Your task to perform on an android device: uninstall "Adobe Acrobat Reader" Image 0: 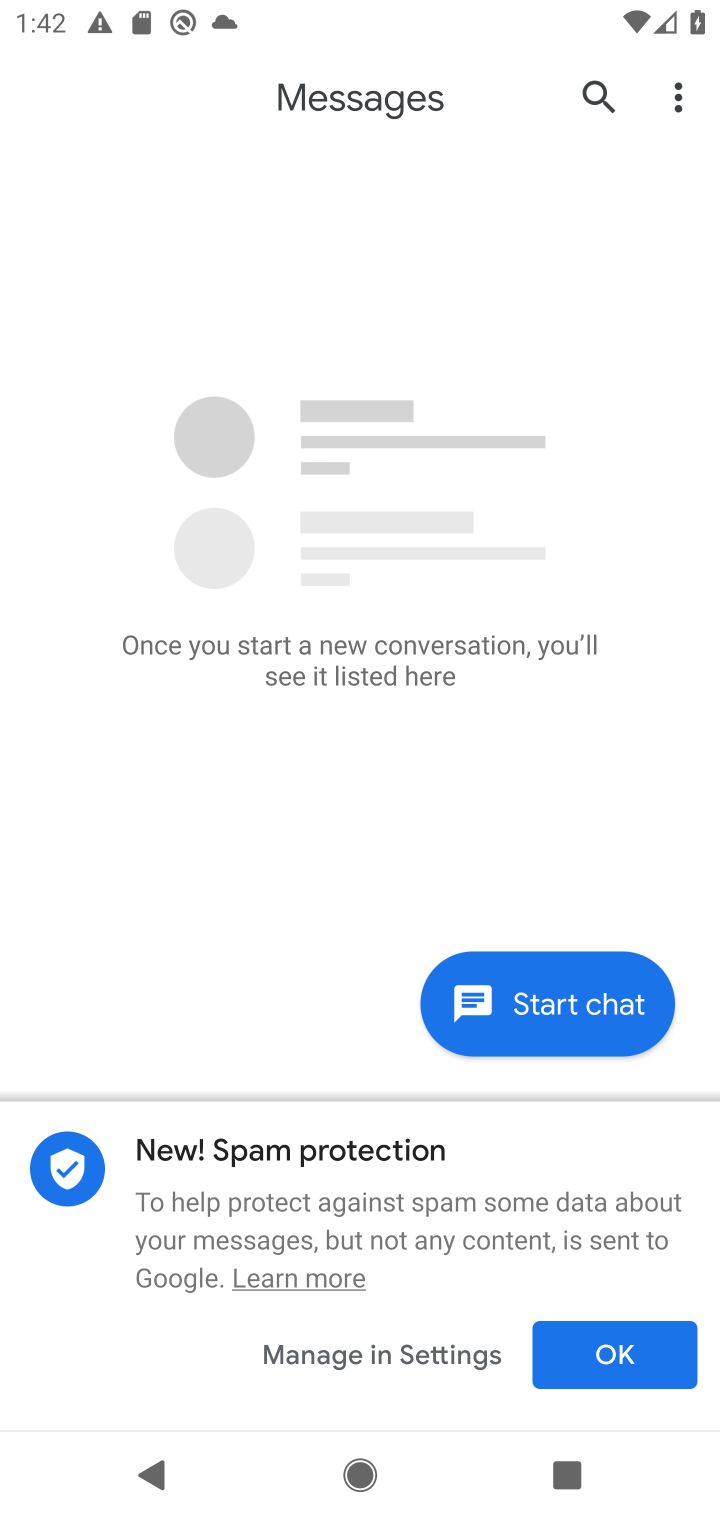
Step 0: press home button
Your task to perform on an android device: uninstall "Adobe Acrobat Reader" Image 1: 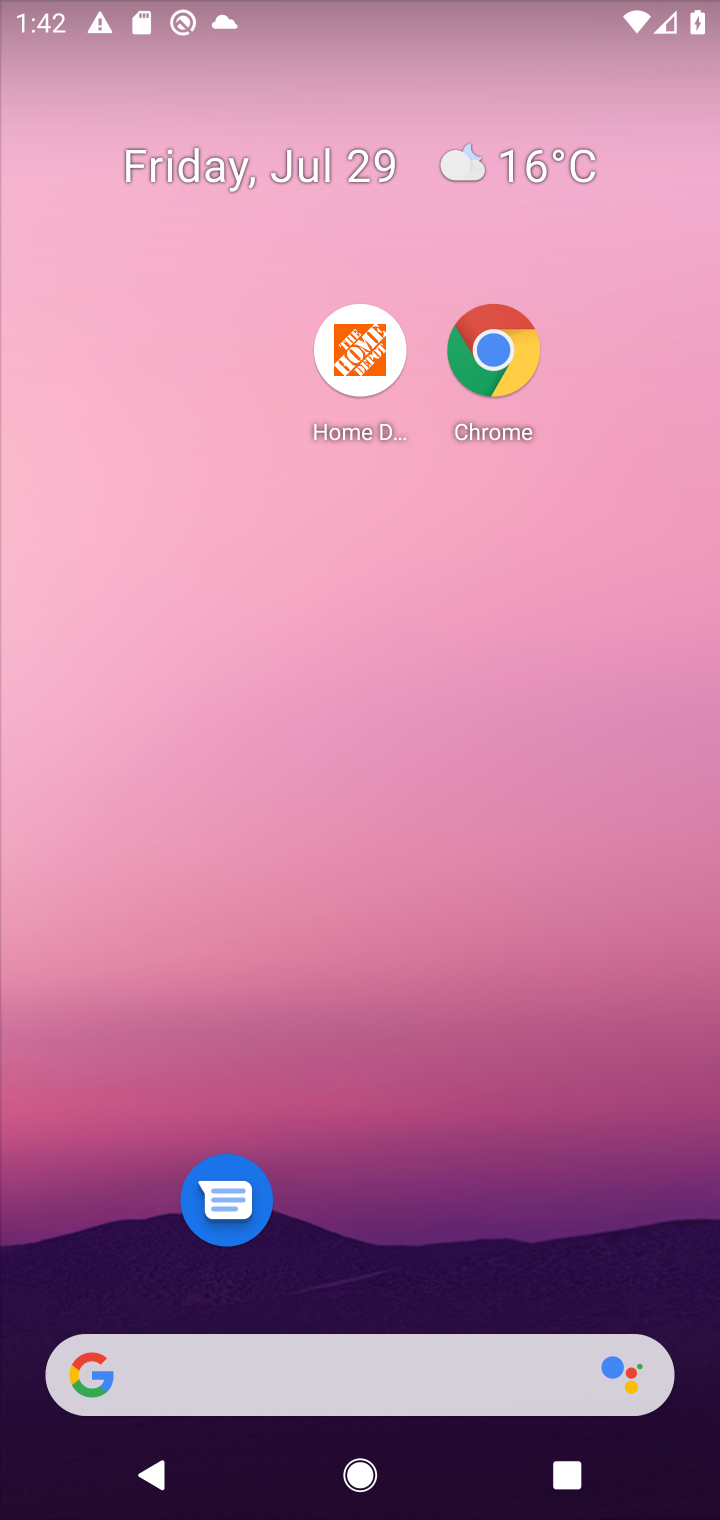
Step 1: drag from (445, 186) to (445, 45)
Your task to perform on an android device: uninstall "Adobe Acrobat Reader" Image 2: 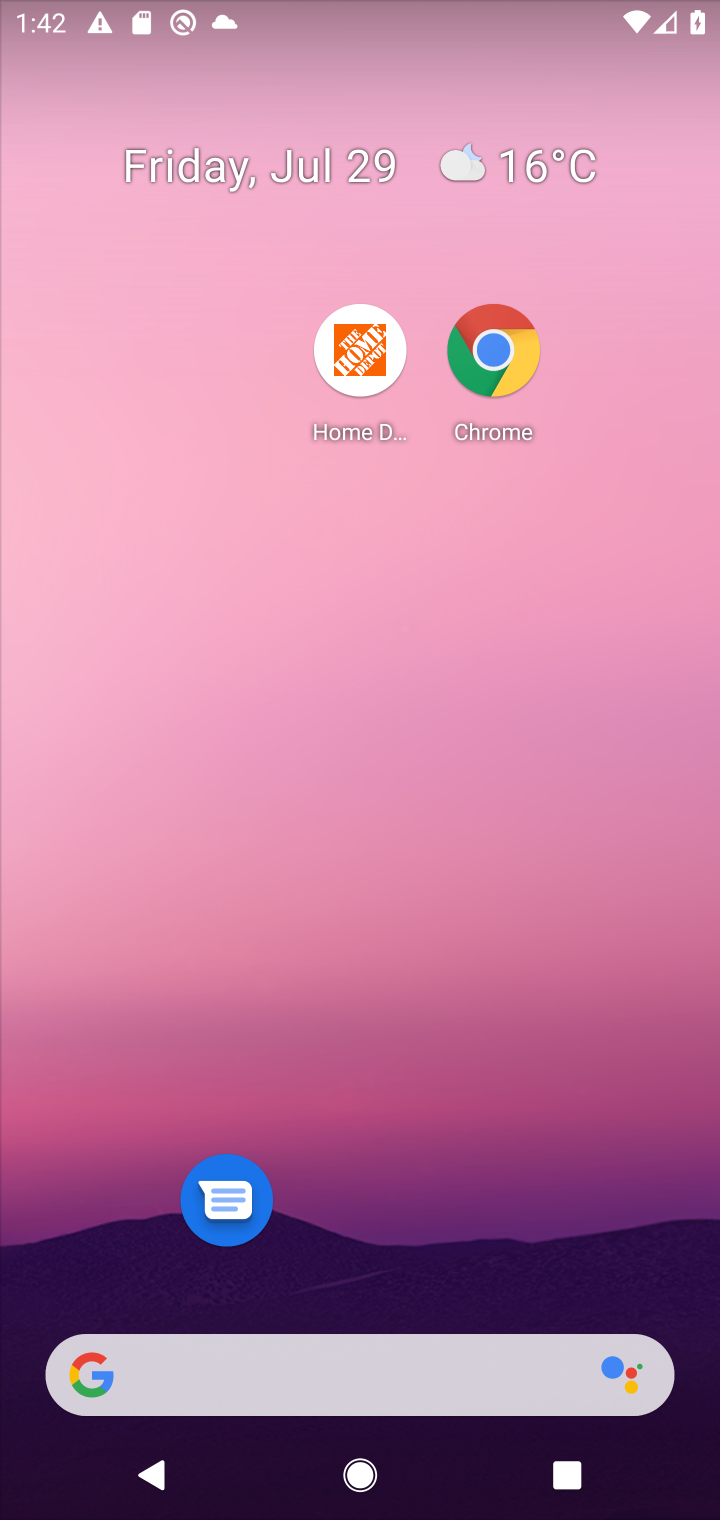
Step 2: drag from (505, 1288) to (461, 266)
Your task to perform on an android device: uninstall "Adobe Acrobat Reader" Image 3: 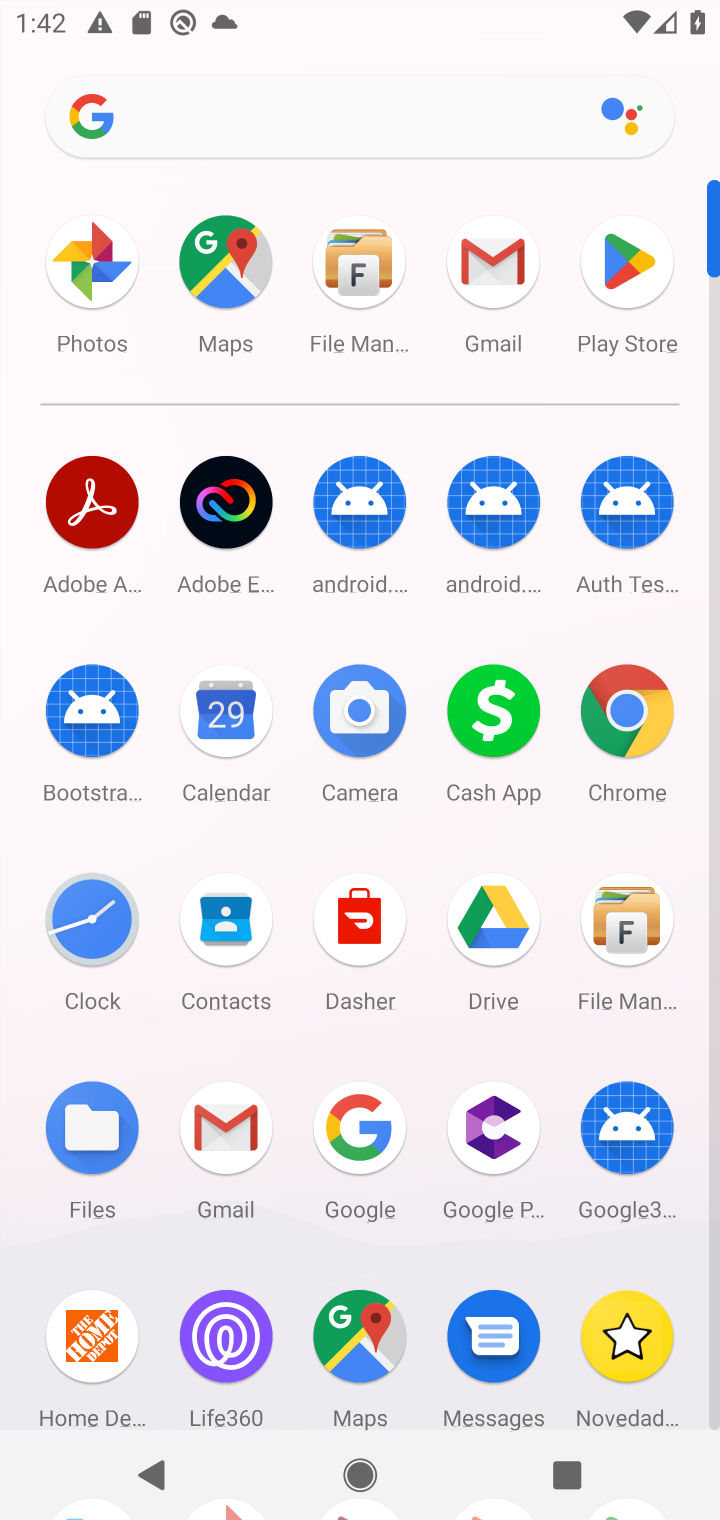
Step 3: click (623, 279)
Your task to perform on an android device: uninstall "Adobe Acrobat Reader" Image 4: 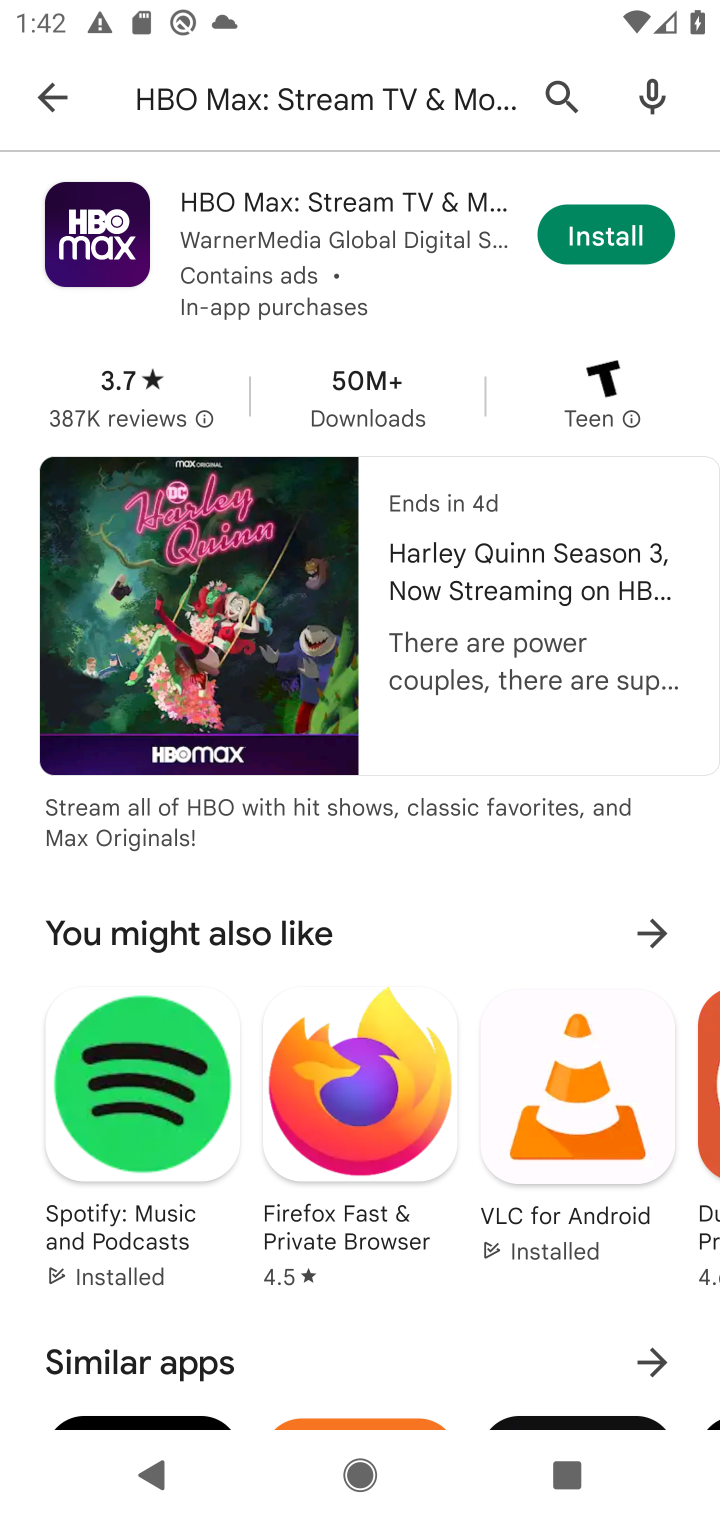
Step 4: click (426, 106)
Your task to perform on an android device: uninstall "Adobe Acrobat Reader" Image 5: 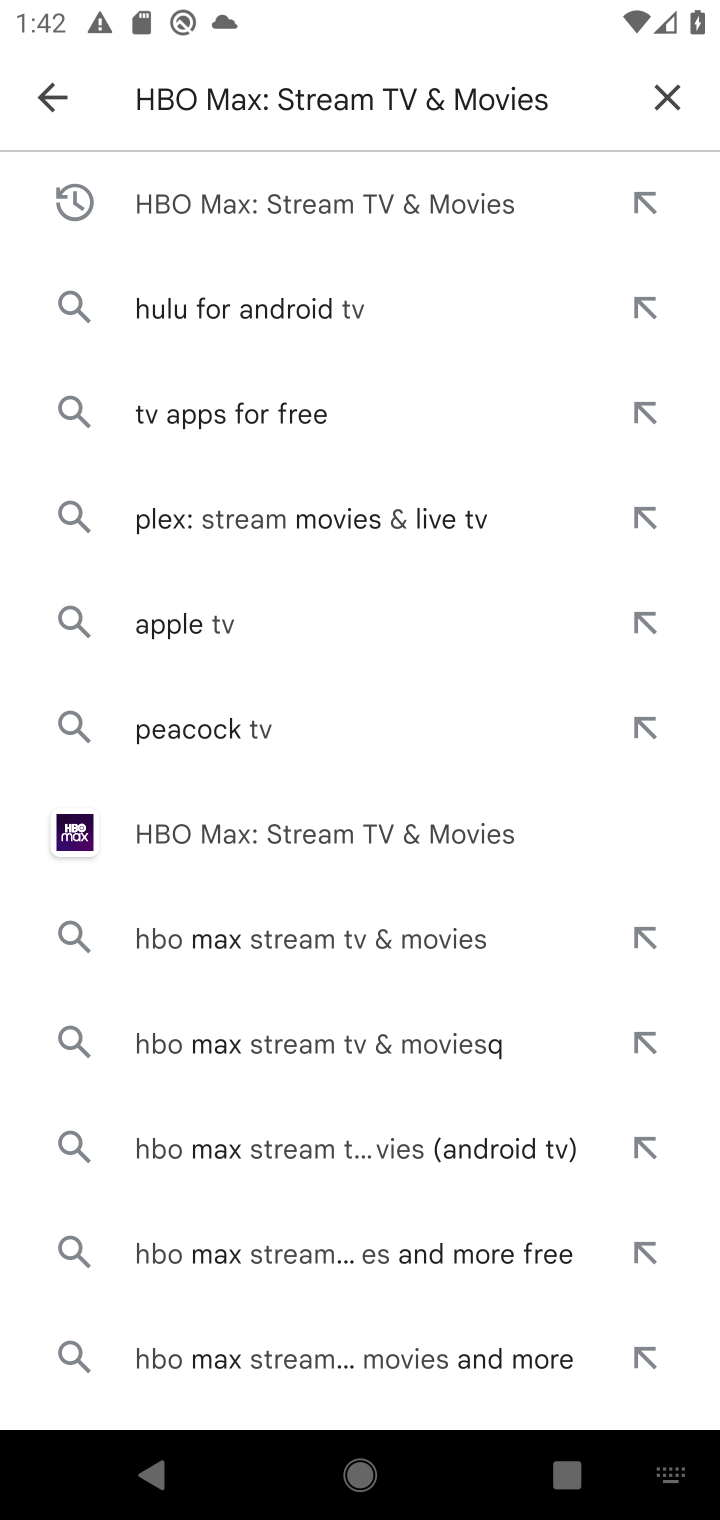
Step 5: click (674, 107)
Your task to perform on an android device: uninstall "Adobe Acrobat Reader" Image 6: 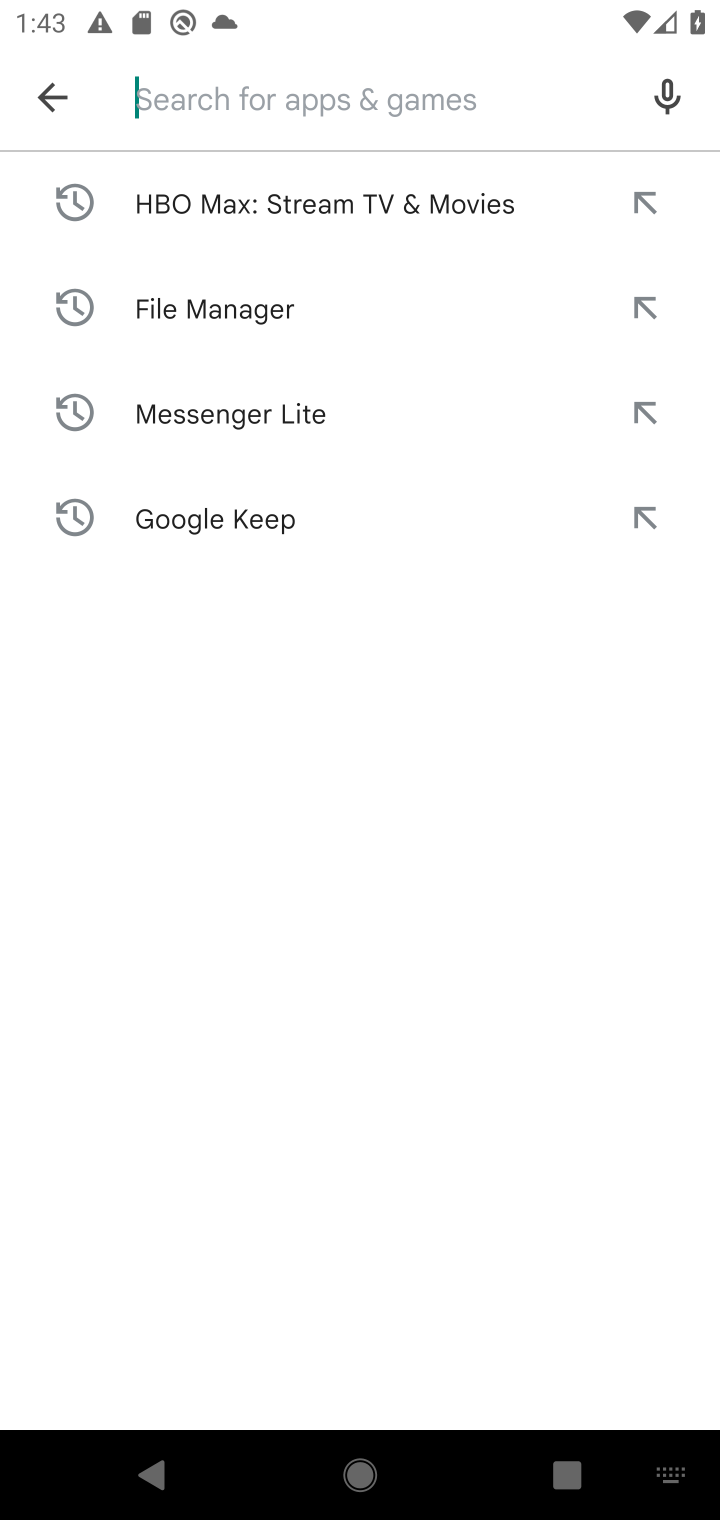
Step 6: type "Adobe Acrobat Reader"
Your task to perform on an android device: uninstall "Adobe Acrobat Reader" Image 7: 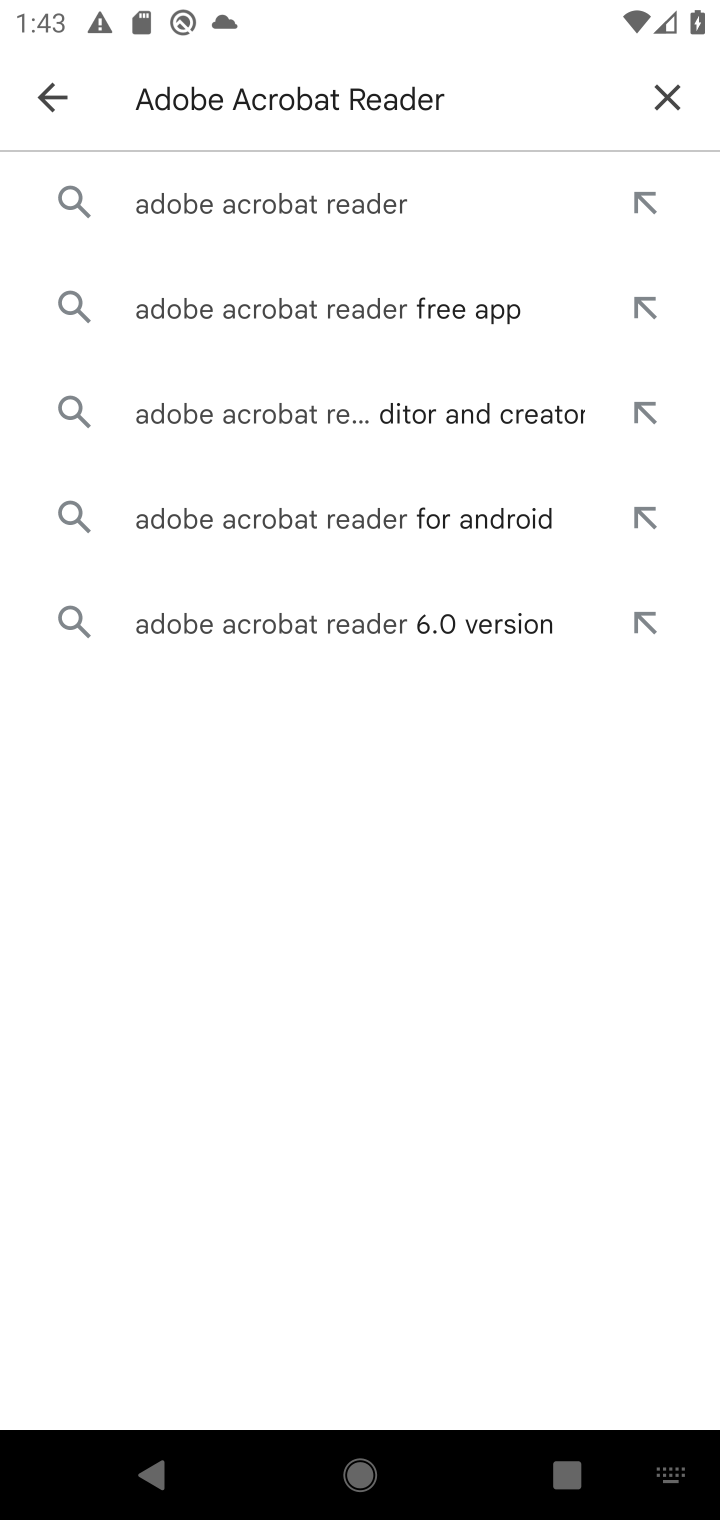
Step 7: press enter
Your task to perform on an android device: uninstall "Adobe Acrobat Reader" Image 8: 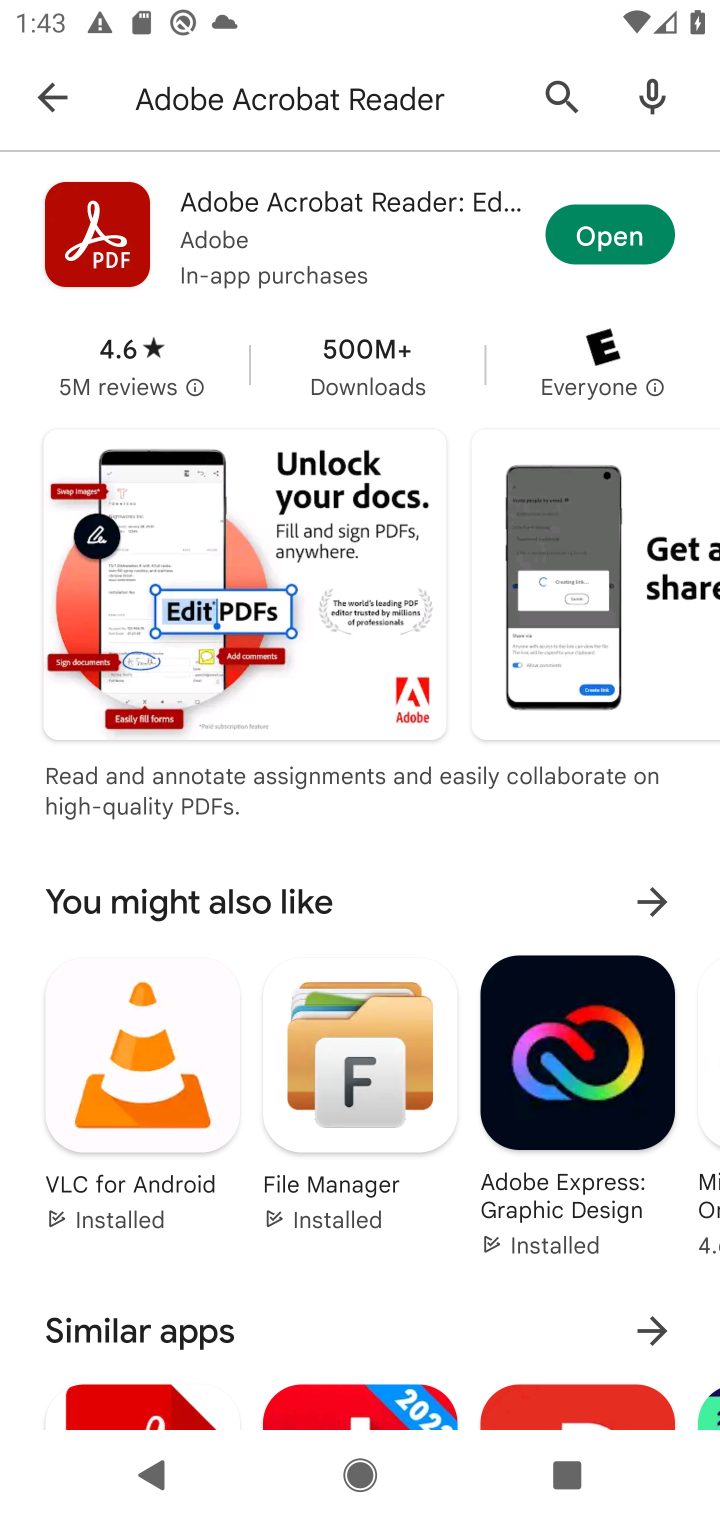
Step 8: click (226, 219)
Your task to perform on an android device: uninstall "Adobe Acrobat Reader" Image 9: 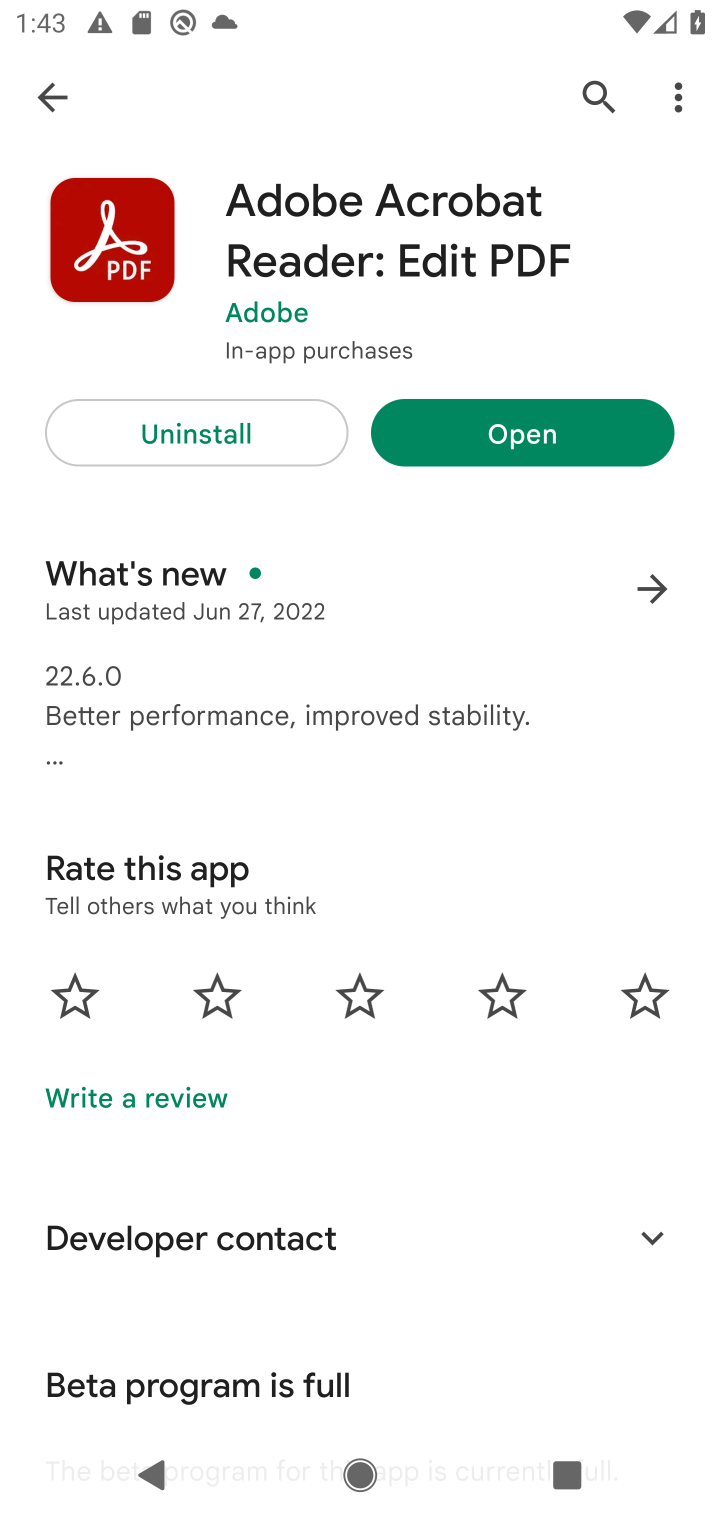
Step 9: click (273, 431)
Your task to perform on an android device: uninstall "Adobe Acrobat Reader" Image 10: 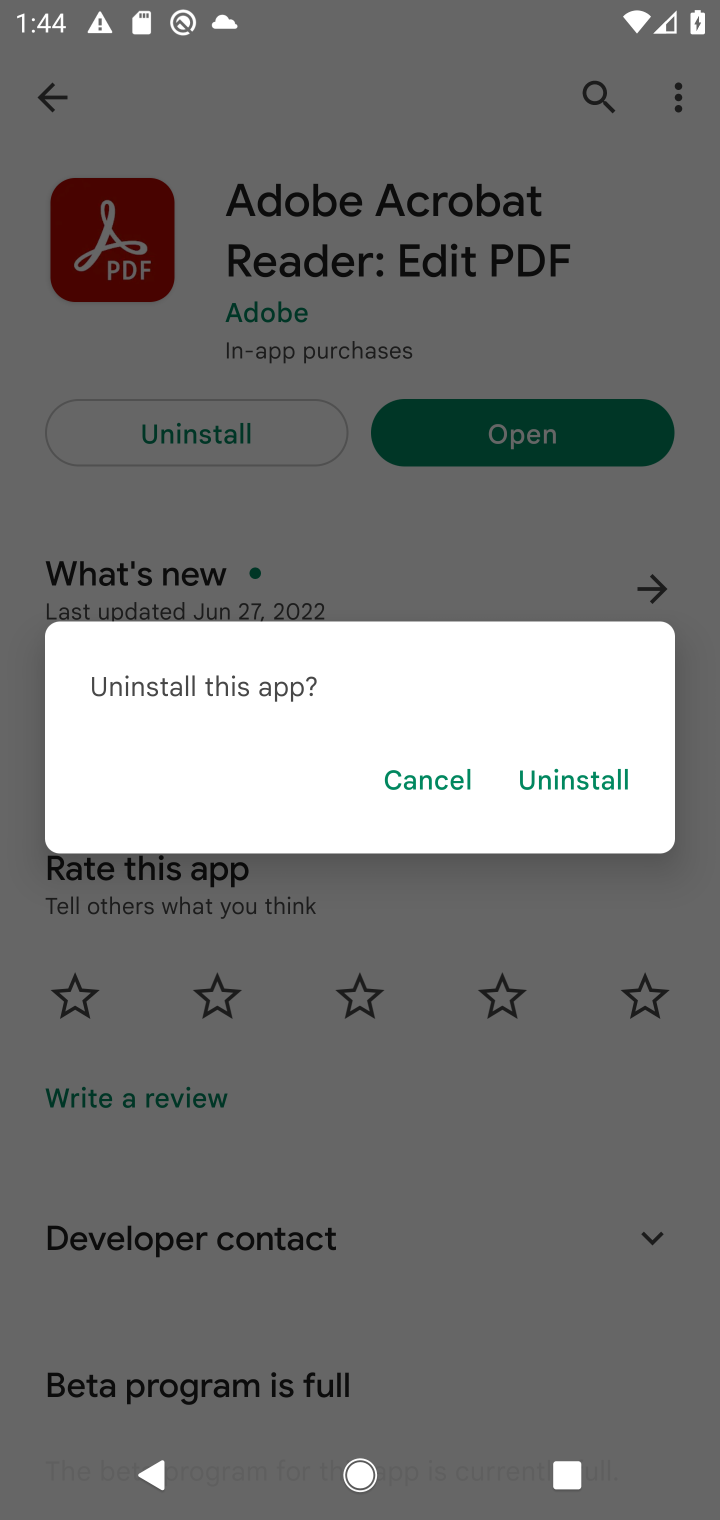
Step 10: click (589, 772)
Your task to perform on an android device: uninstall "Adobe Acrobat Reader" Image 11: 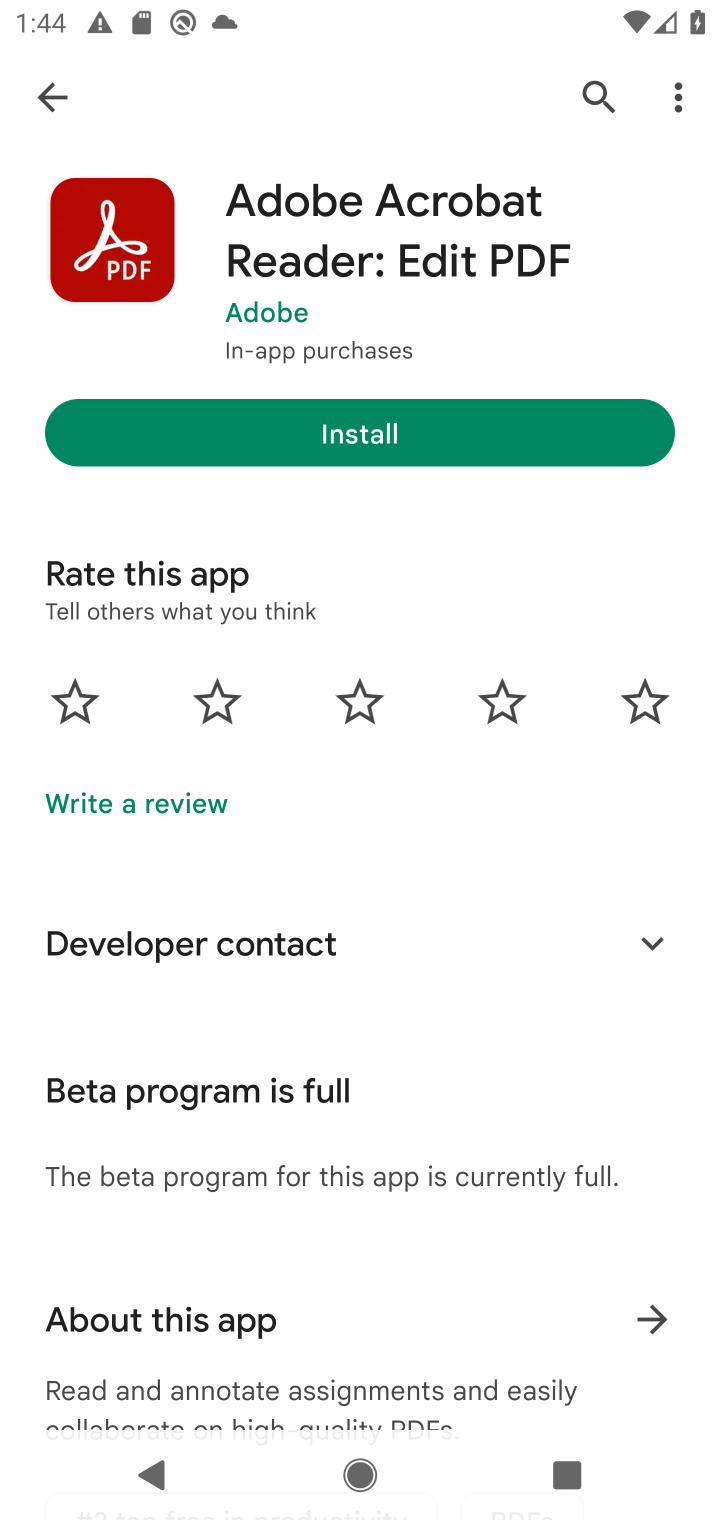
Step 11: task complete